Your task to perform on an android device: Go to calendar. Show me events next week Image 0: 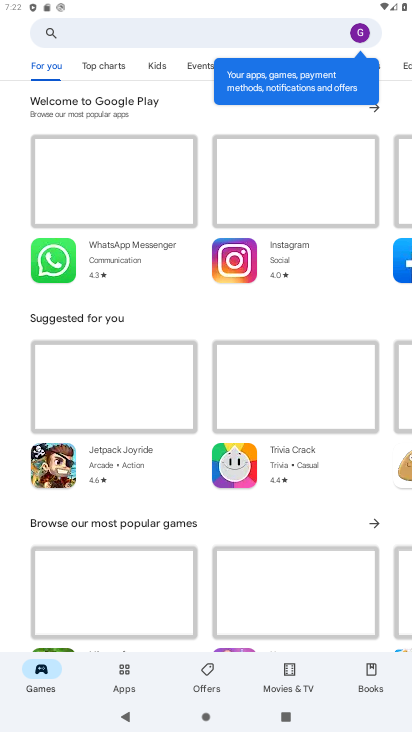
Step 0: press home button
Your task to perform on an android device: Go to calendar. Show me events next week Image 1: 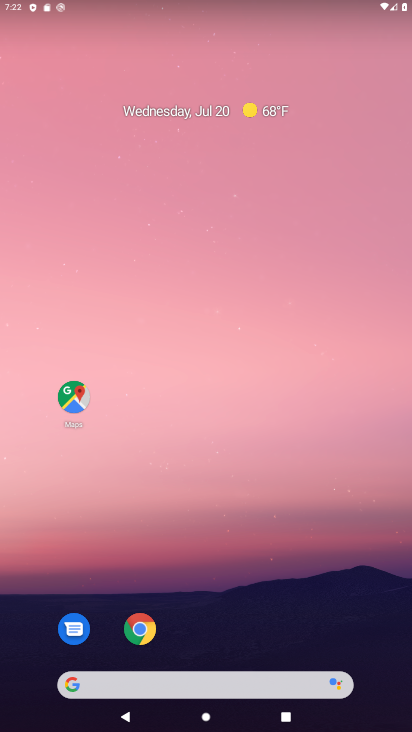
Step 1: drag from (341, 585) to (354, 156)
Your task to perform on an android device: Go to calendar. Show me events next week Image 2: 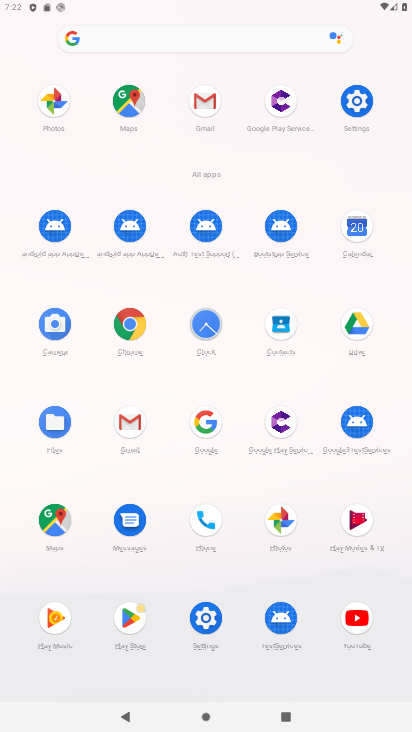
Step 2: click (353, 235)
Your task to perform on an android device: Go to calendar. Show me events next week Image 3: 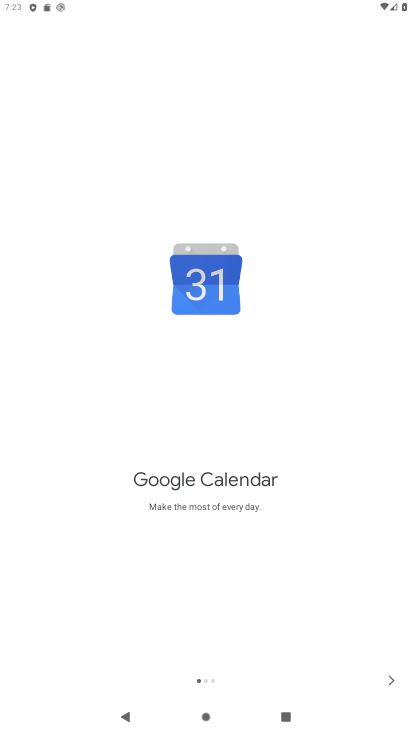
Step 3: click (388, 685)
Your task to perform on an android device: Go to calendar. Show me events next week Image 4: 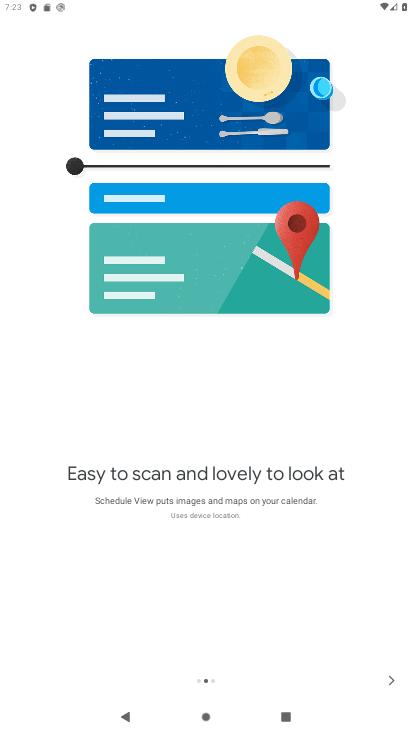
Step 4: click (388, 685)
Your task to perform on an android device: Go to calendar. Show me events next week Image 5: 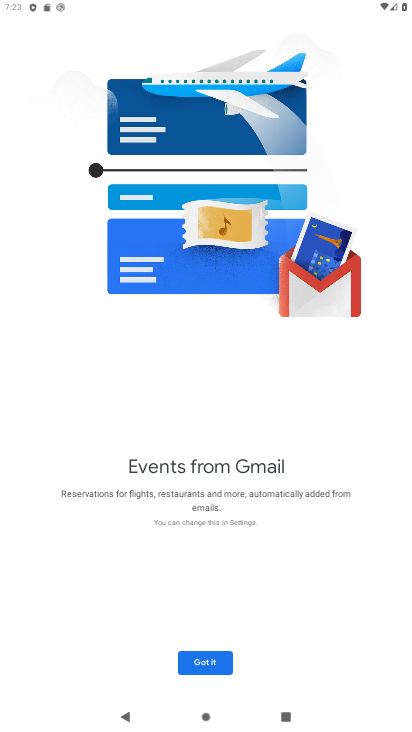
Step 5: click (220, 657)
Your task to perform on an android device: Go to calendar. Show me events next week Image 6: 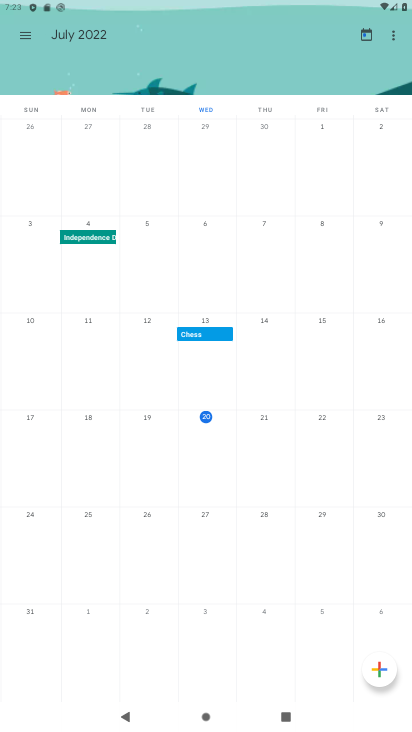
Step 6: click (26, 31)
Your task to perform on an android device: Go to calendar. Show me events next week Image 7: 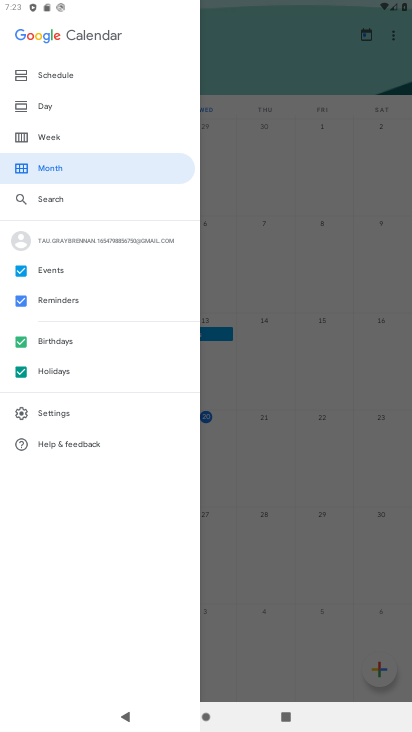
Step 7: click (57, 77)
Your task to perform on an android device: Go to calendar. Show me events next week Image 8: 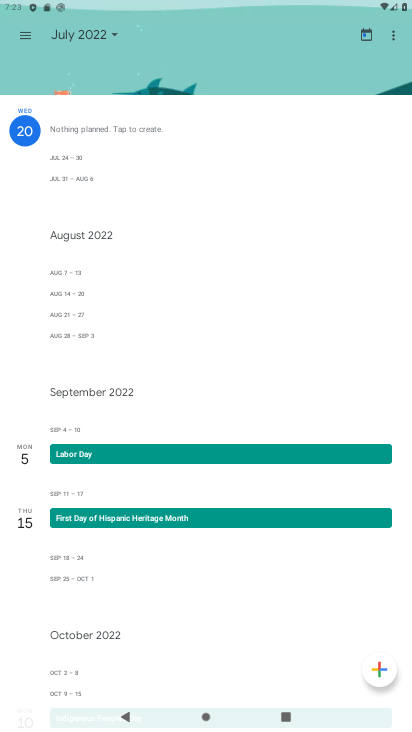
Step 8: click (116, 31)
Your task to perform on an android device: Go to calendar. Show me events next week Image 9: 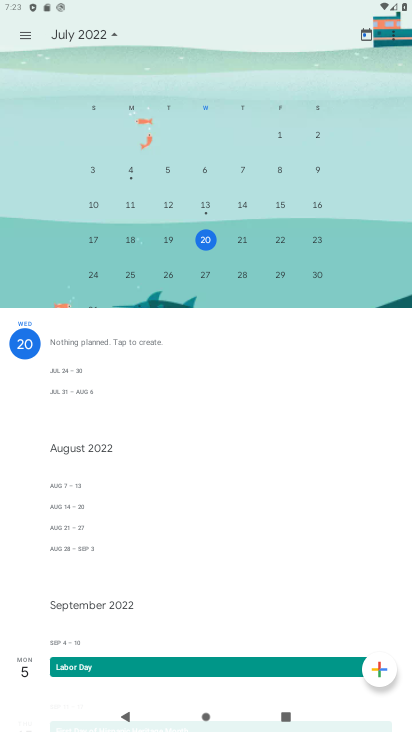
Step 9: click (130, 277)
Your task to perform on an android device: Go to calendar. Show me events next week Image 10: 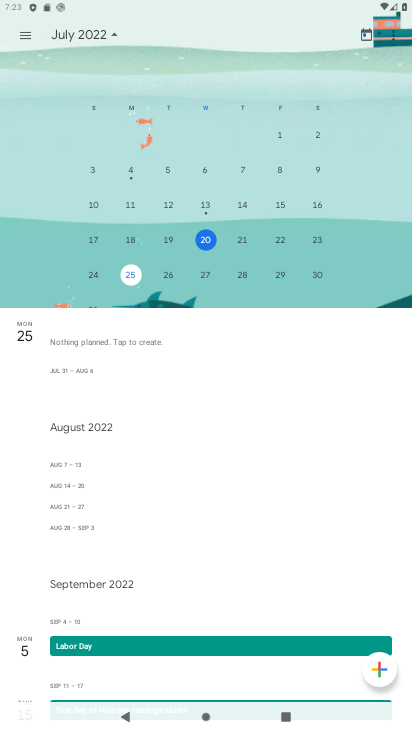
Step 10: task complete